Your task to perform on an android device: Check the news Image 0: 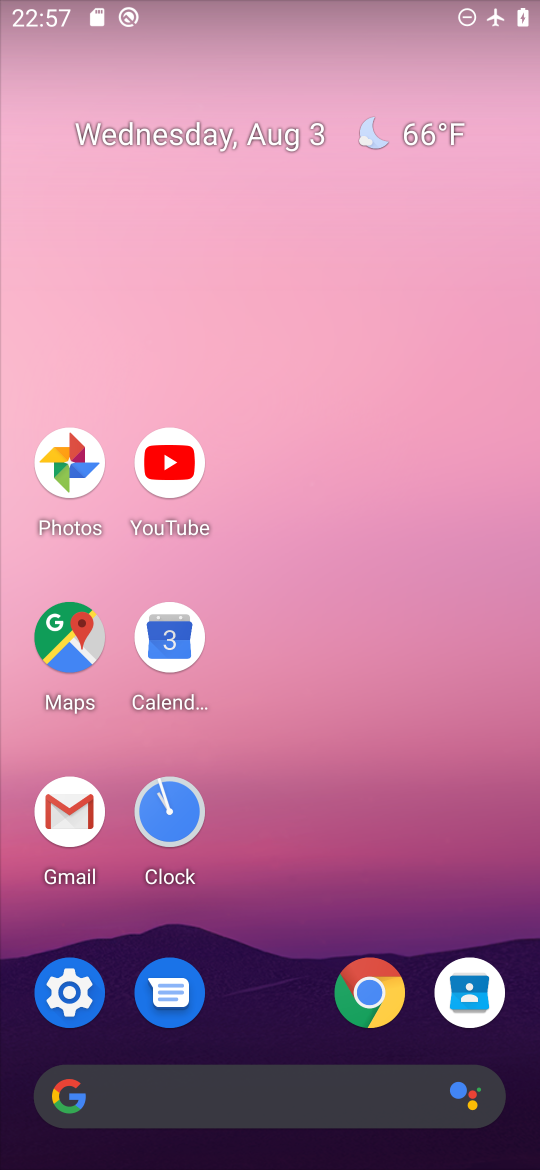
Step 0: click (76, 1098)
Your task to perform on an android device: Check the news Image 1: 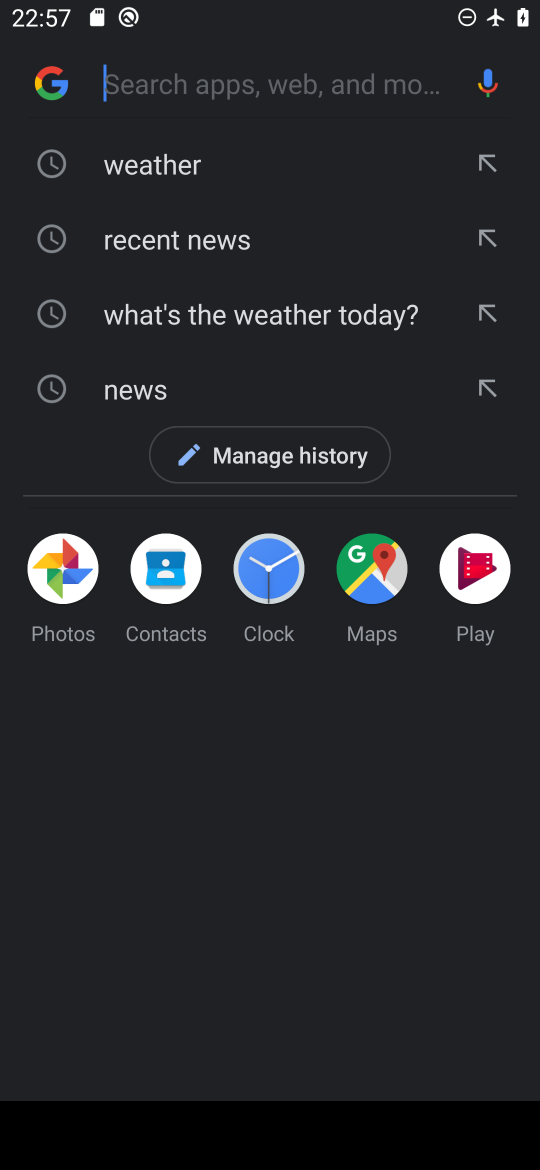
Step 1: click (108, 395)
Your task to perform on an android device: Check the news Image 2: 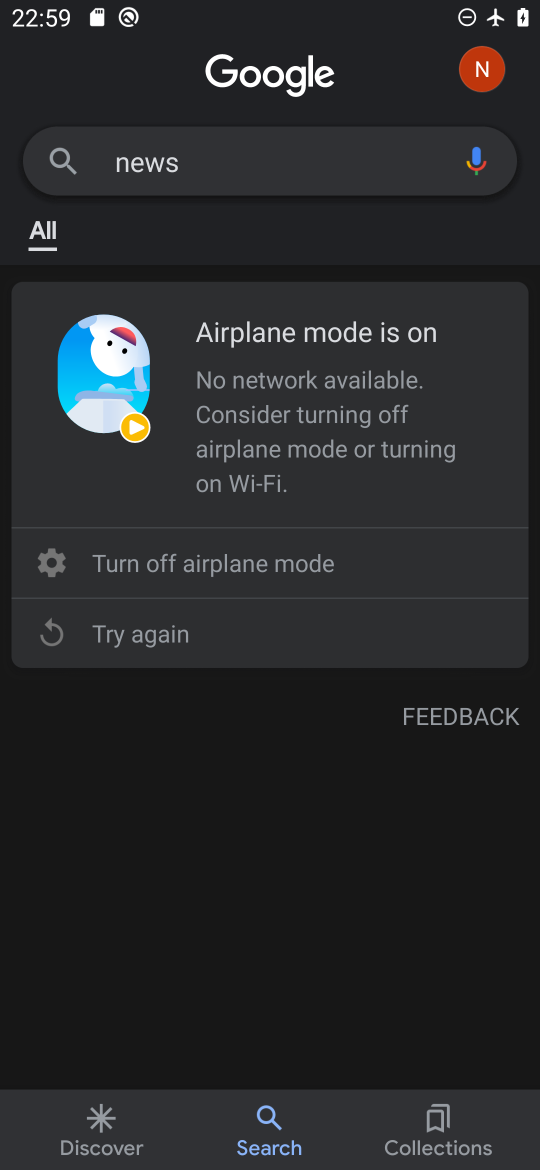
Step 2: task complete